Your task to perform on an android device: change alarm snooze length Image 0: 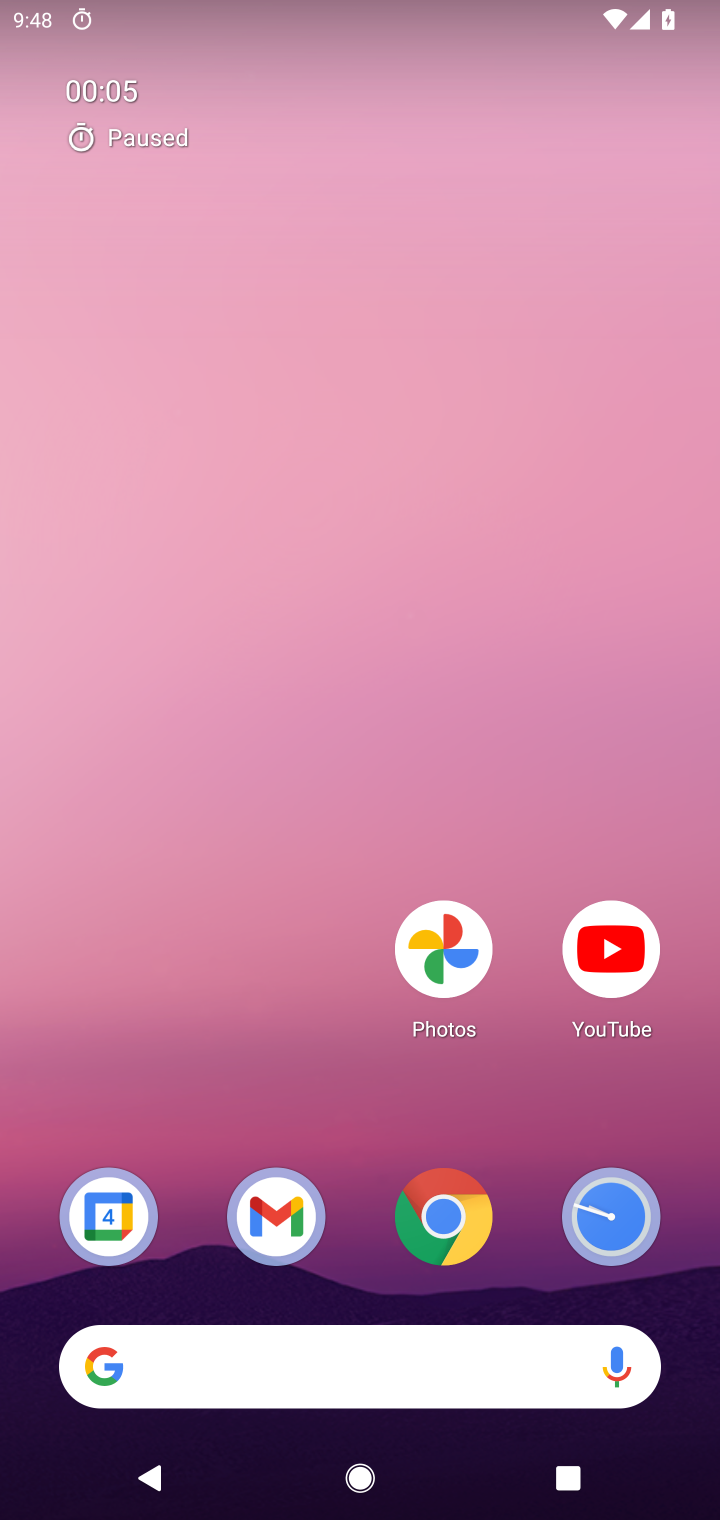
Step 0: drag from (346, 738) to (345, 346)
Your task to perform on an android device: change alarm snooze length Image 1: 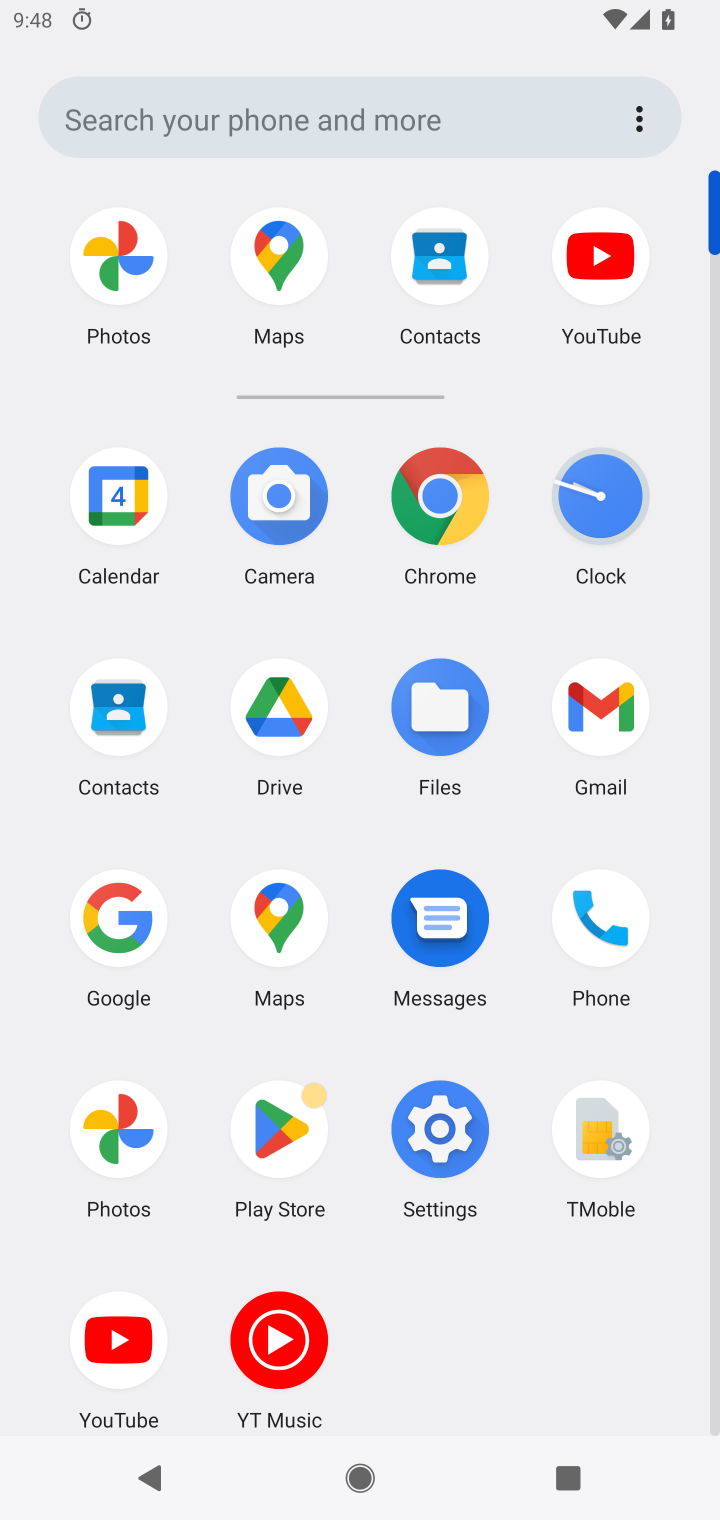
Step 1: click (609, 488)
Your task to perform on an android device: change alarm snooze length Image 2: 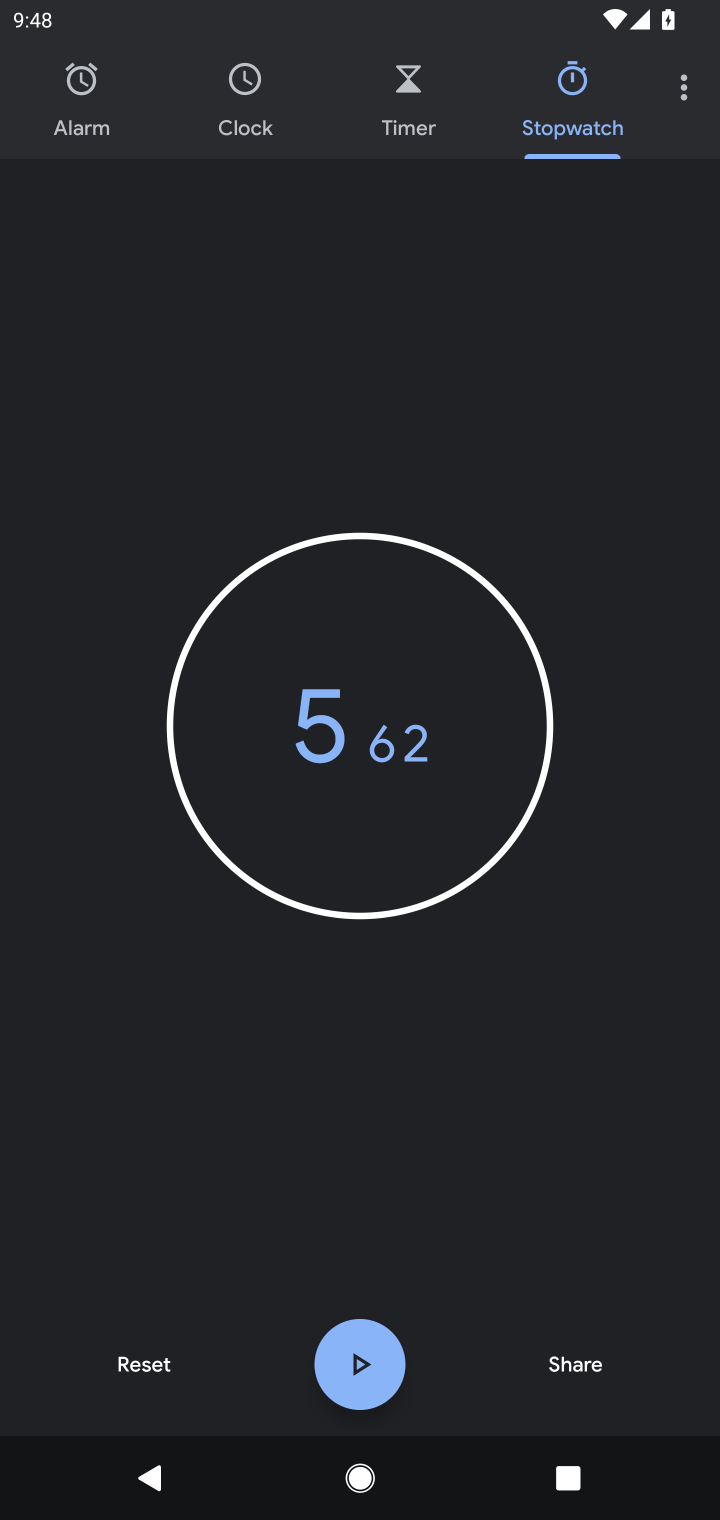
Step 2: click (686, 95)
Your task to perform on an android device: change alarm snooze length Image 3: 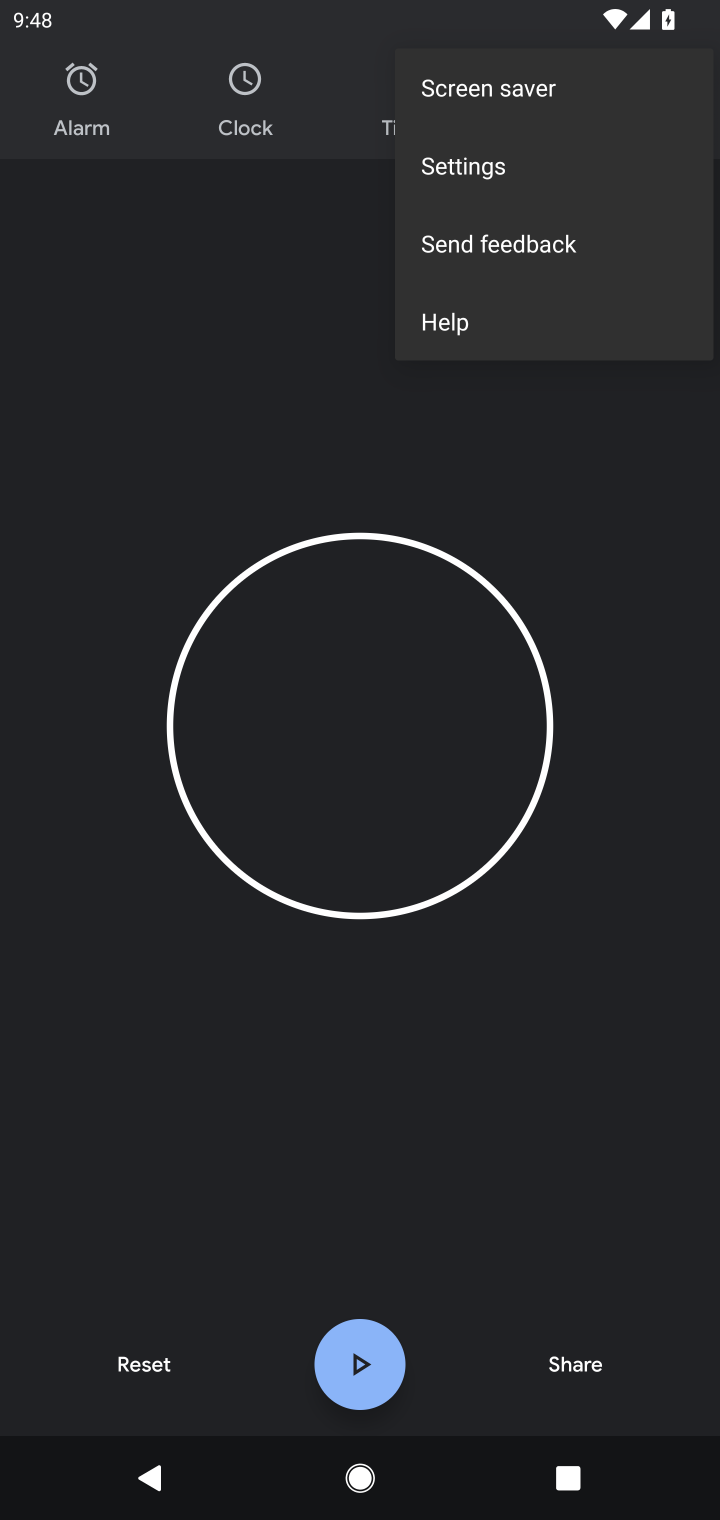
Step 3: click (484, 168)
Your task to perform on an android device: change alarm snooze length Image 4: 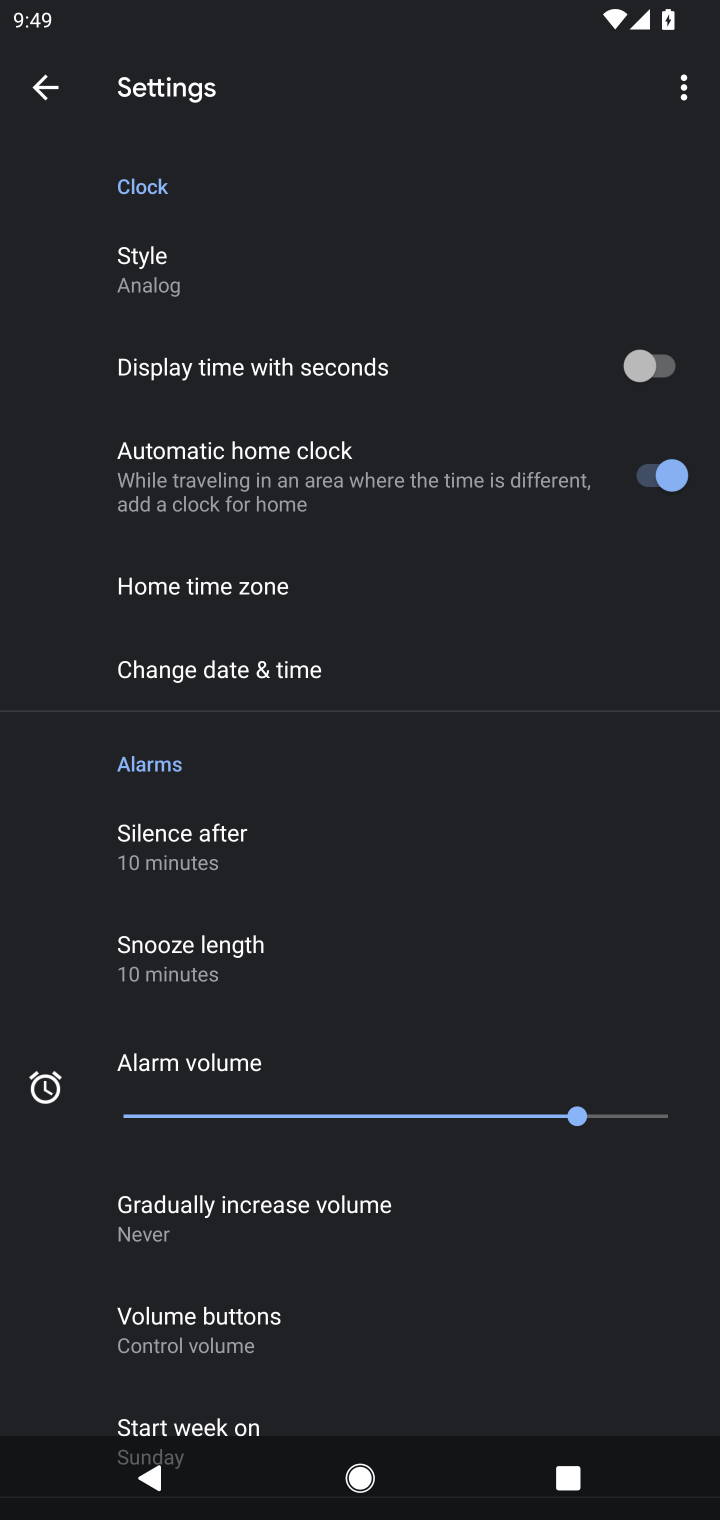
Step 4: click (186, 945)
Your task to perform on an android device: change alarm snooze length Image 5: 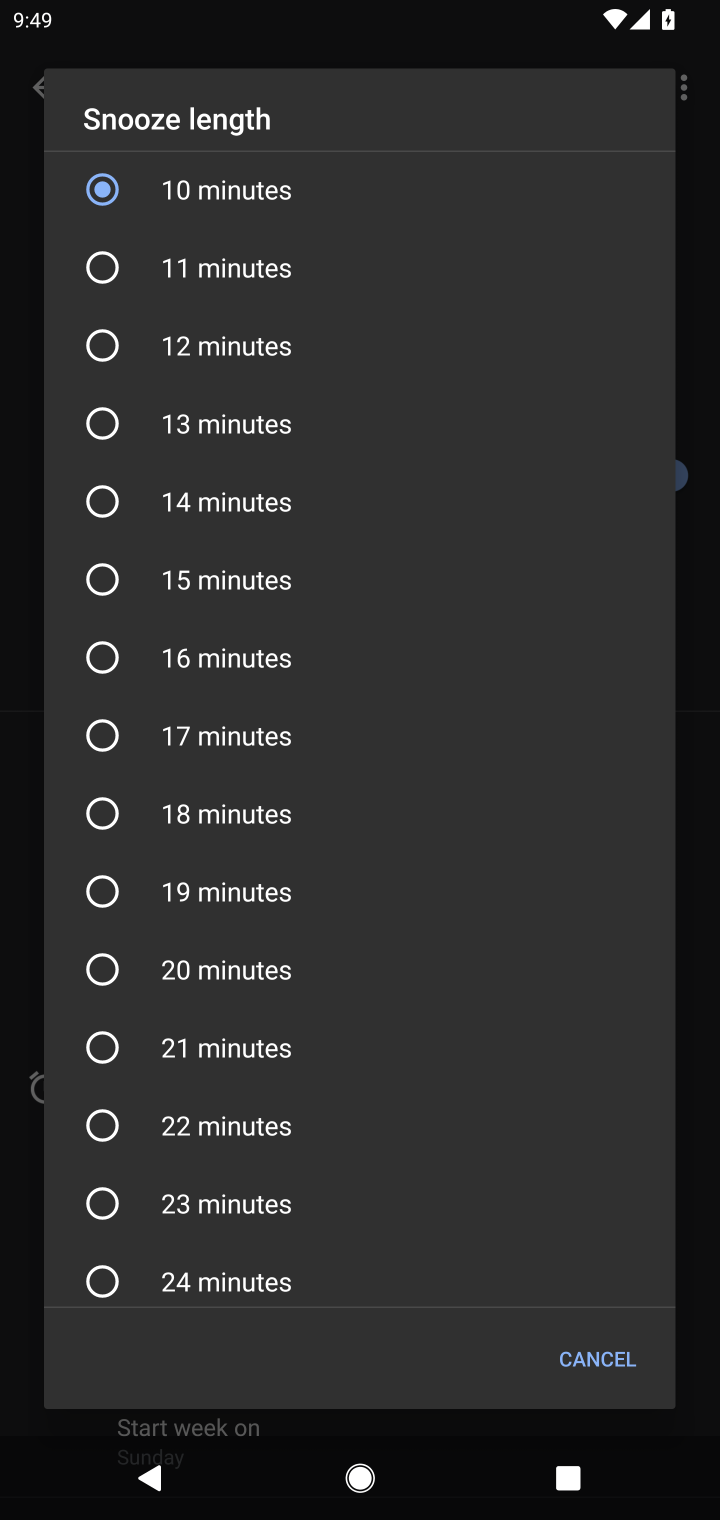
Step 5: click (114, 1130)
Your task to perform on an android device: change alarm snooze length Image 6: 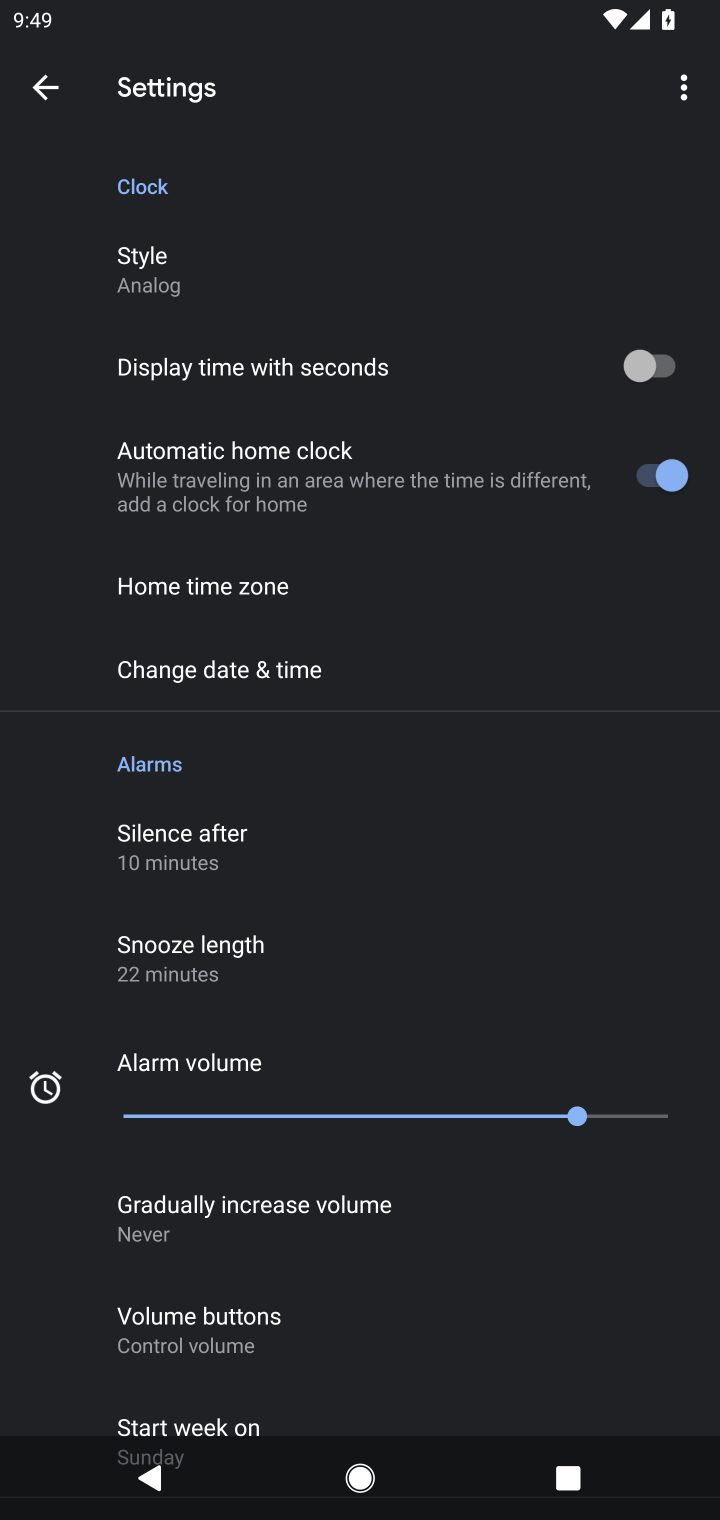
Step 6: task complete